Your task to perform on an android device: When is my next meeting? Image 0: 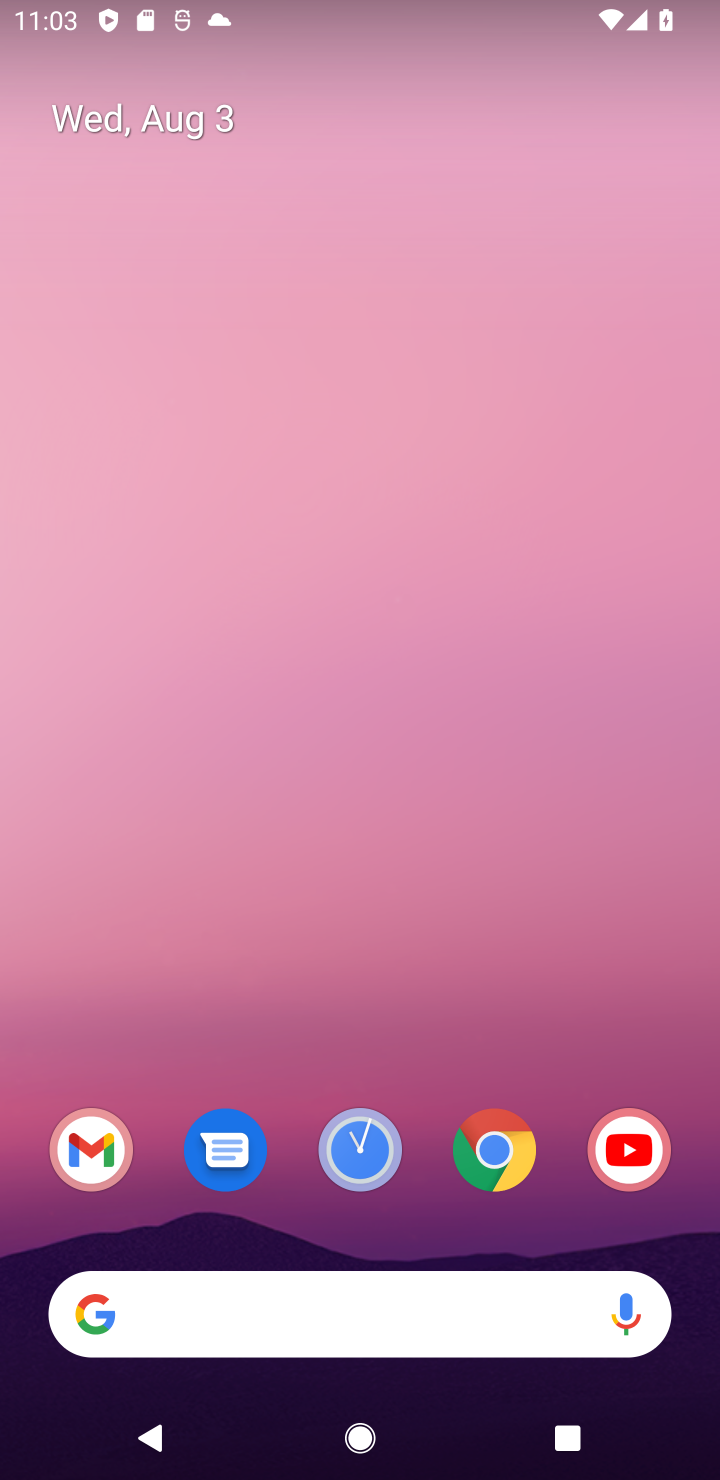
Step 0: press home button
Your task to perform on an android device: When is my next meeting? Image 1: 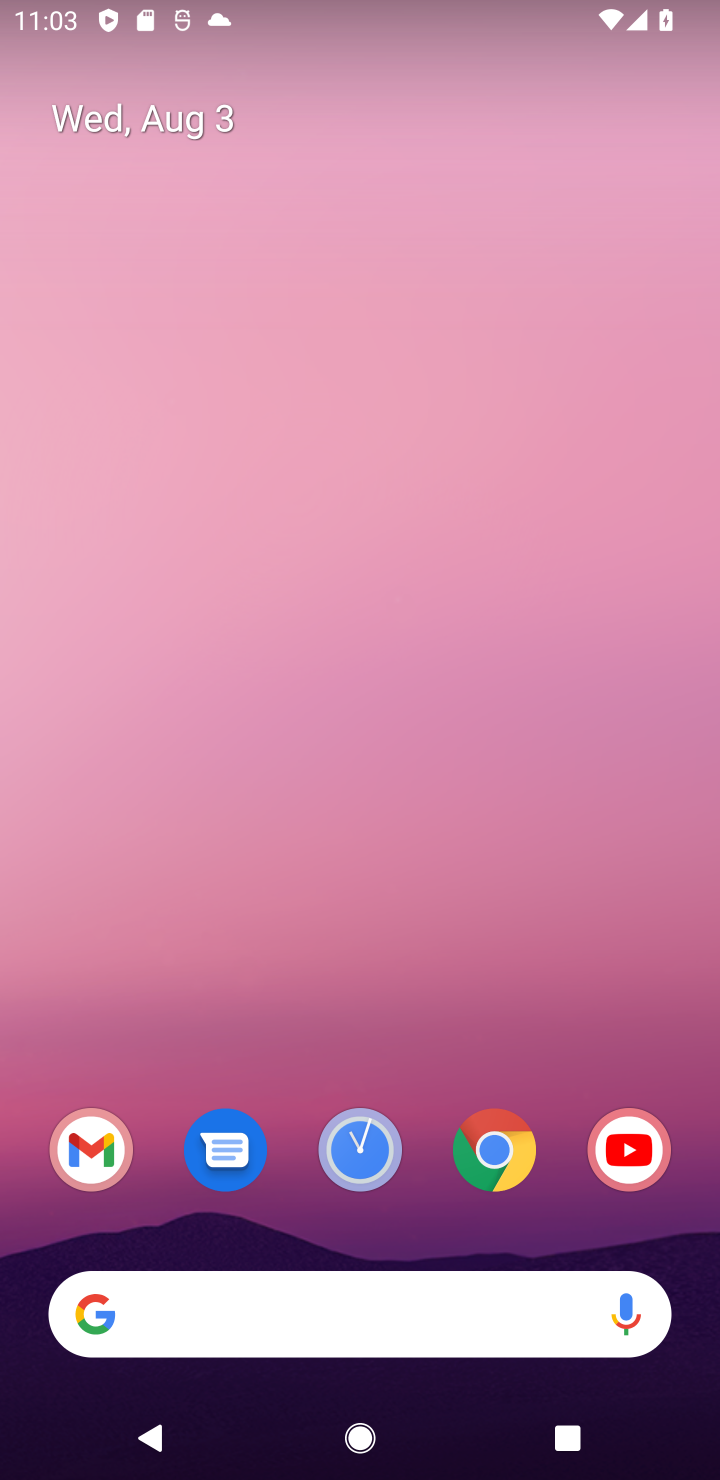
Step 1: drag from (552, 1065) to (572, 356)
Your task to perform on an android device: When is my next meeting? Image 2: 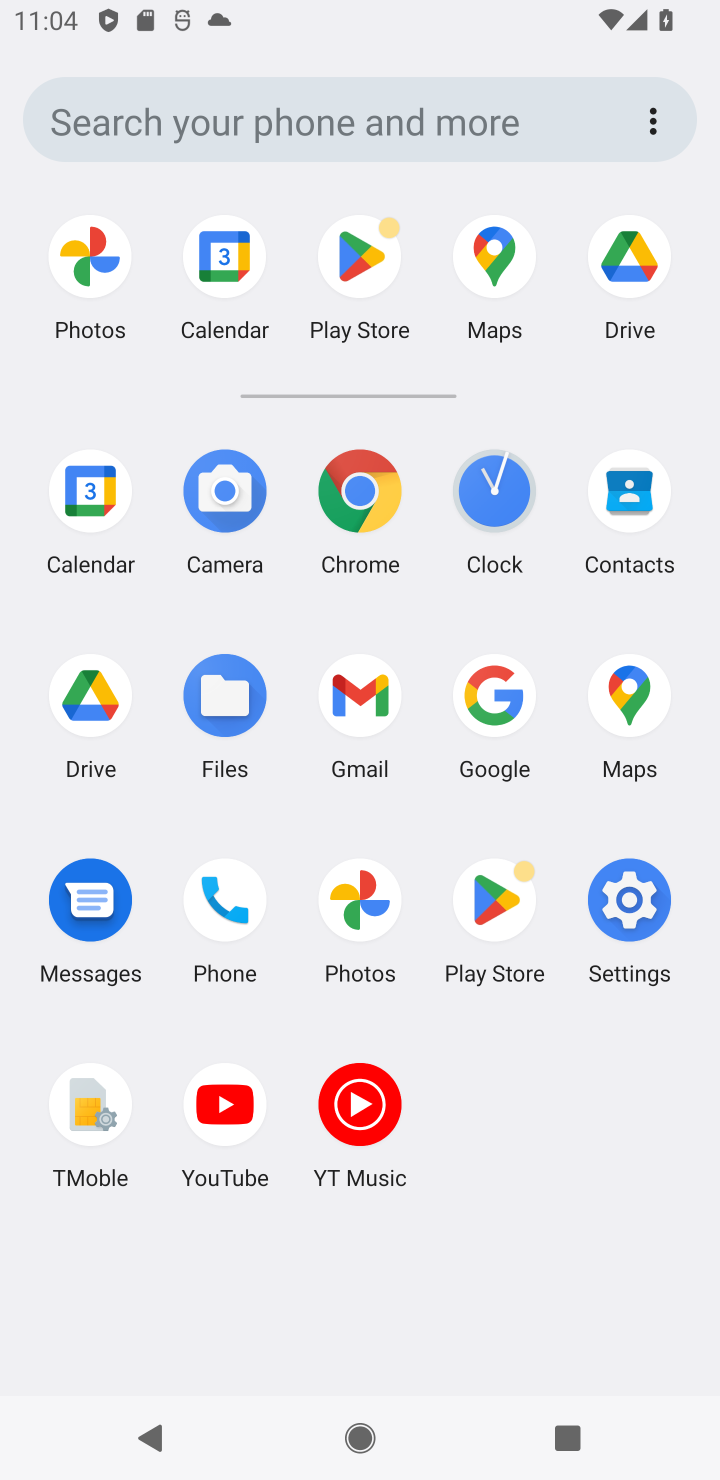
Step 2: click (96, 487)
Your task to perform on an android device: When is my next meeting? Image 3: 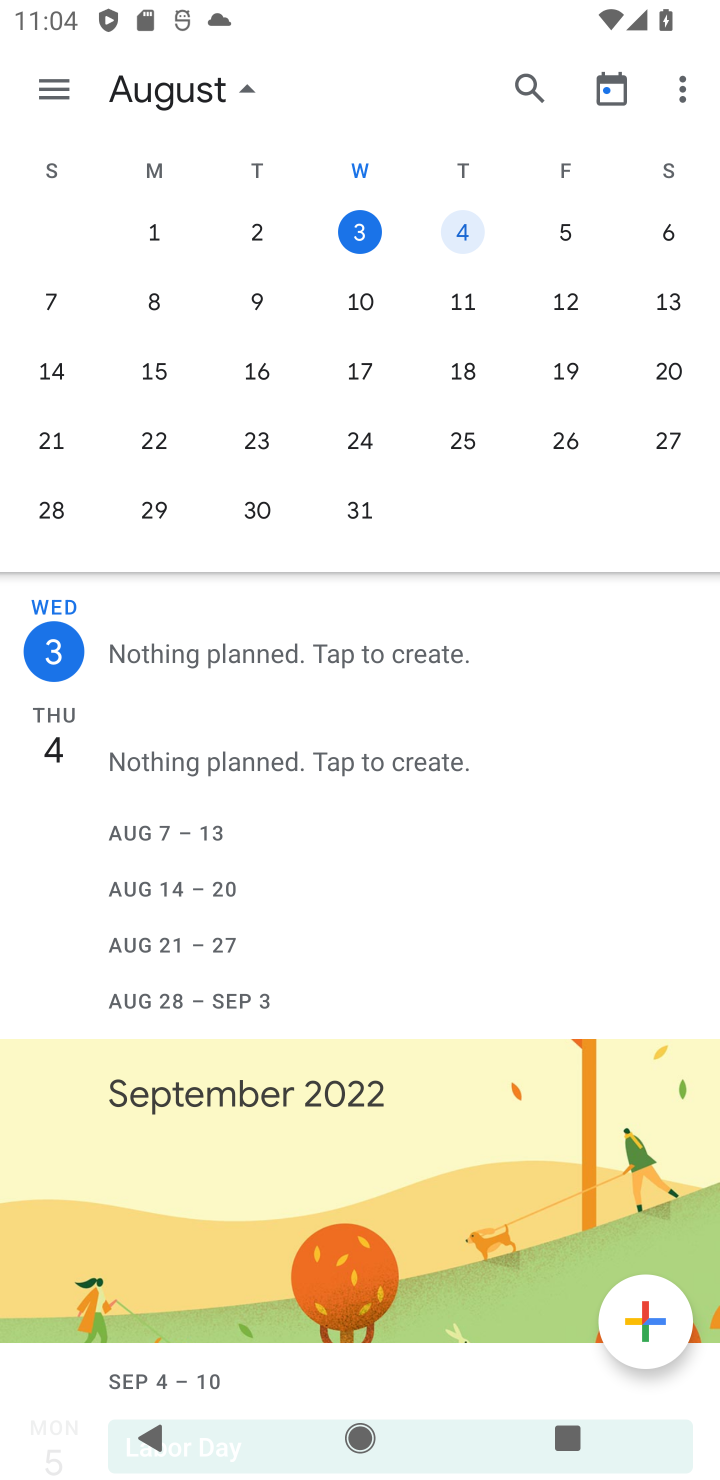
Step 3: task complete